Your task to perform on an android device: turn off location Image 0: 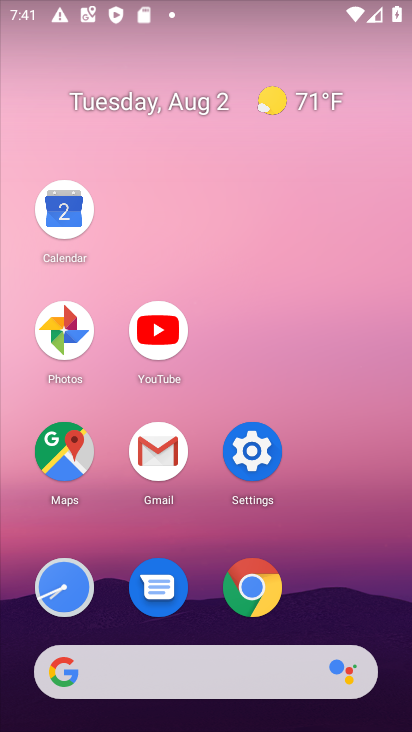
Step 0: click (251, 450)
Your task to perform on an android device: turn off location Image 1: 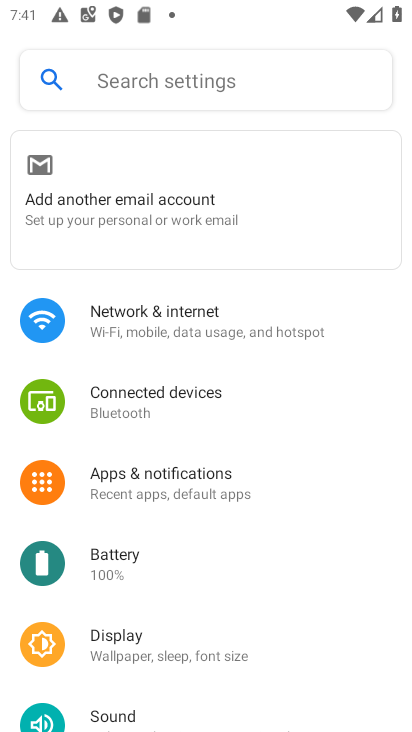
Step 1: drag from (213, 571) to (213, 118)
Your task to perform on an android device: turn off location Image 2: 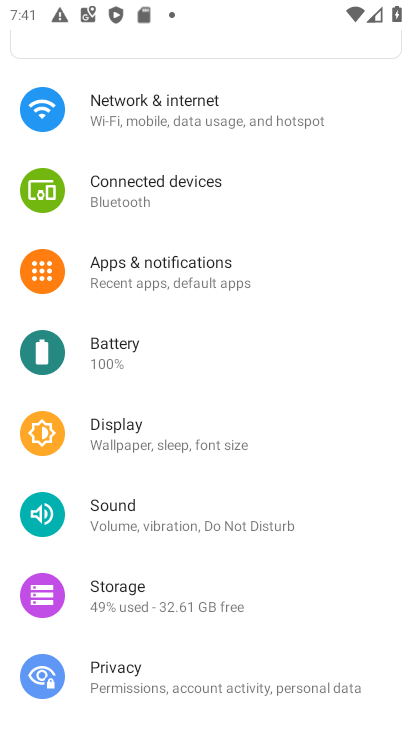
Step 2: drag from (307, 597) to (325, 40)
Your task to perform on an android device: turn off location Image 3: 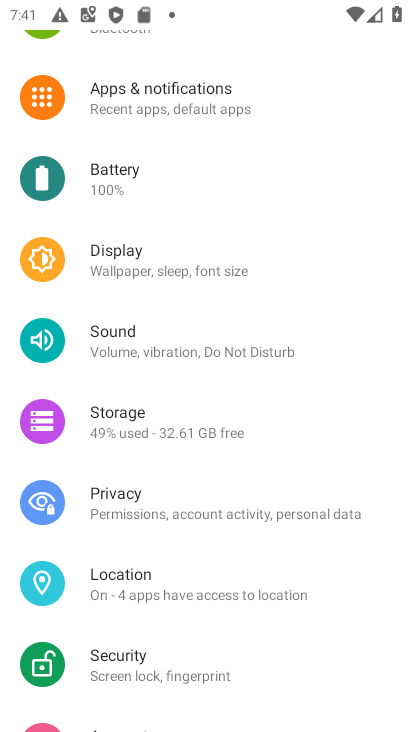
Step 3: click (118, 572)
Your task to perform on an android device: turn off location Image 4: 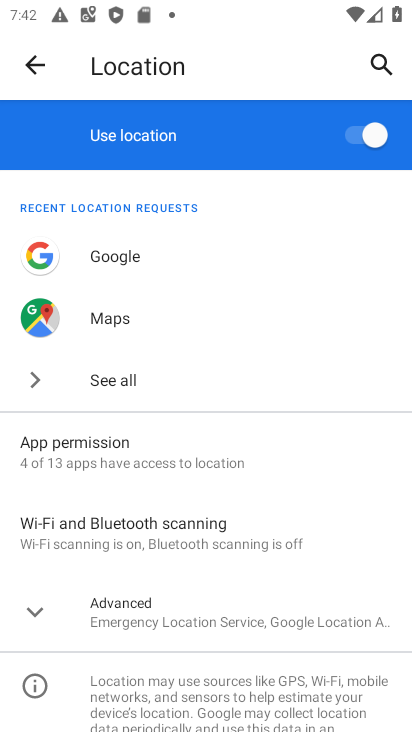
Step 4: click (380, 128)
Your task to perform on an android device: turn off location Image 5: 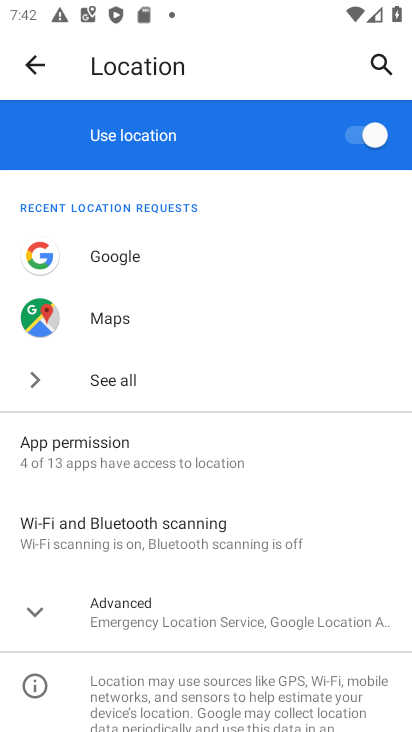
Step 5: click (380, 128)
Your task to perform on an android device: turn off location Image 6: 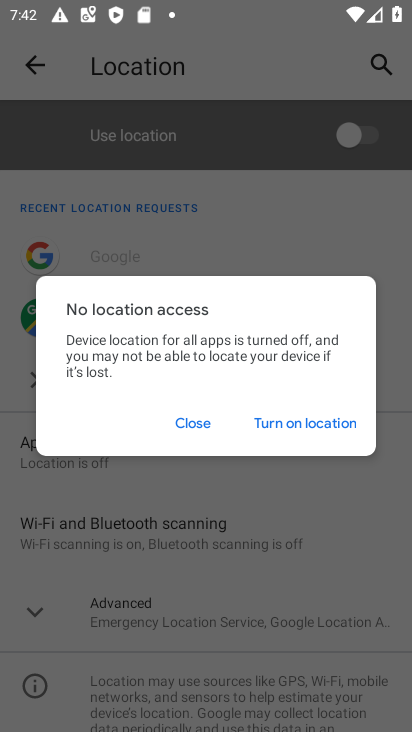
Step 6: click (203, 424)
Your task to perform on an android device: turn off location Image 7: 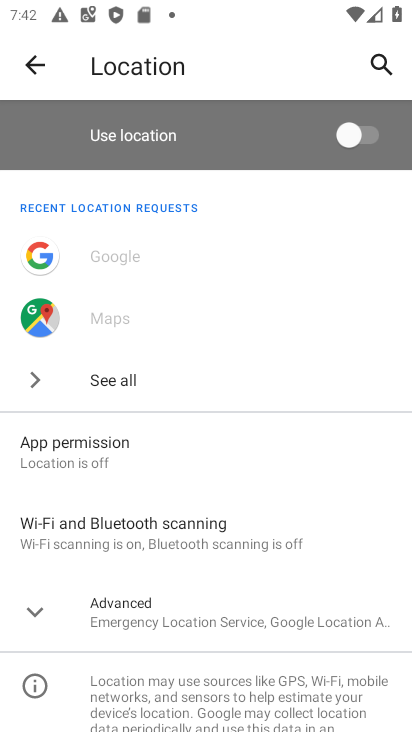
Step 7: task complete